Your task to perform on an android device: What is the news today? Image 0: 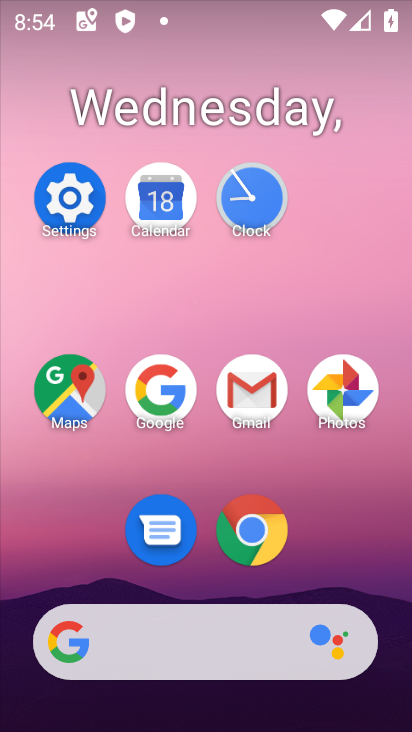
Step 0: click (164, 392)
Your task to perform on an android device: What is the news today? Image 1: 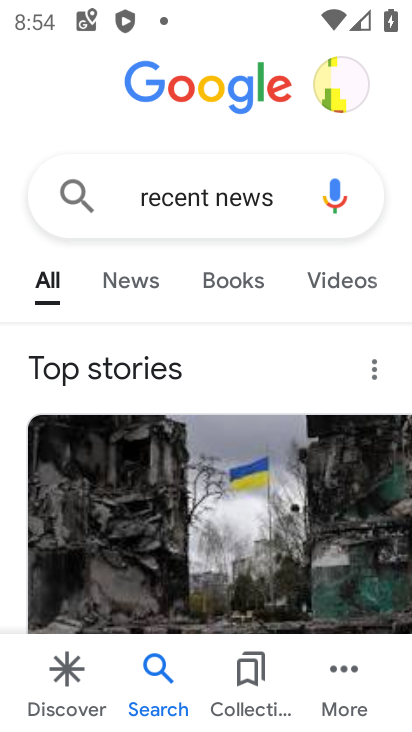
Step 1: click (279, 194)
Your task to perform on an android device: What is the news today? Image 2: 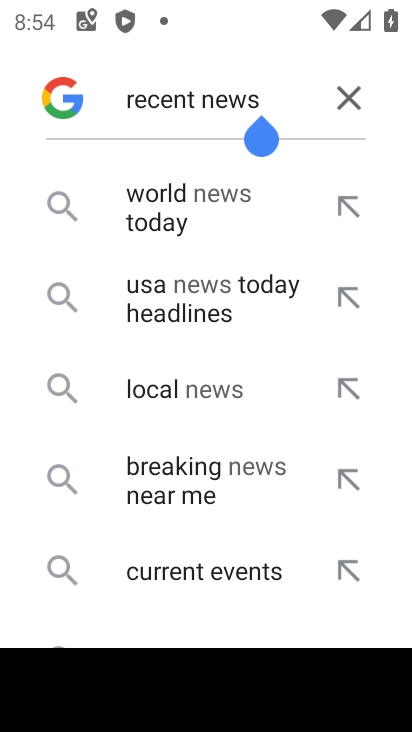
Step 2: click (343, 90)
Your task to perform on an android device: What is the news today? Image 3: 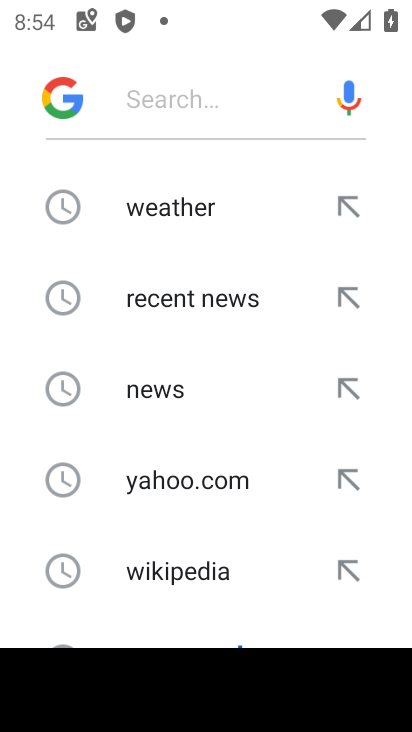
Step 3: click (150, 410)
Your task to perform on an android device: What is the news today? Image 4: 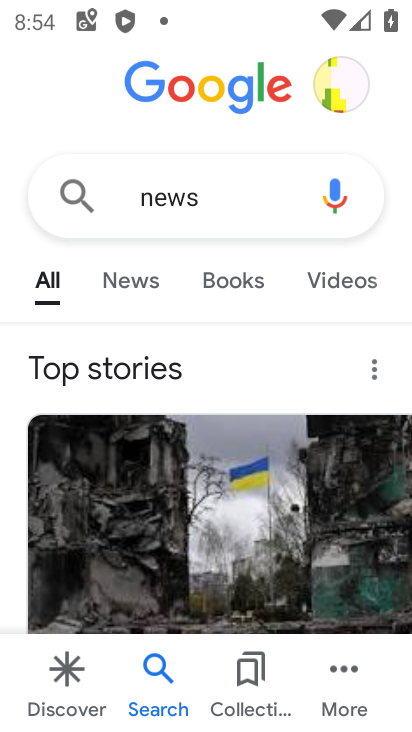
Step 4: task complete